Your task to perform on an android device: turn on wifi Image 0: 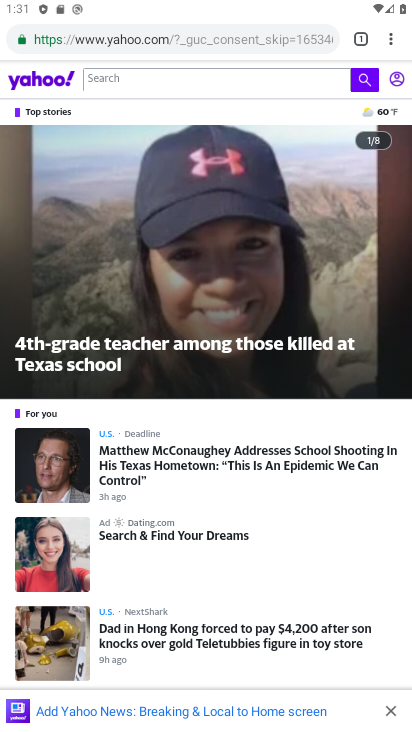
Step 0: press home button
Your task to perform on an android device: turn on wifi Image 1: 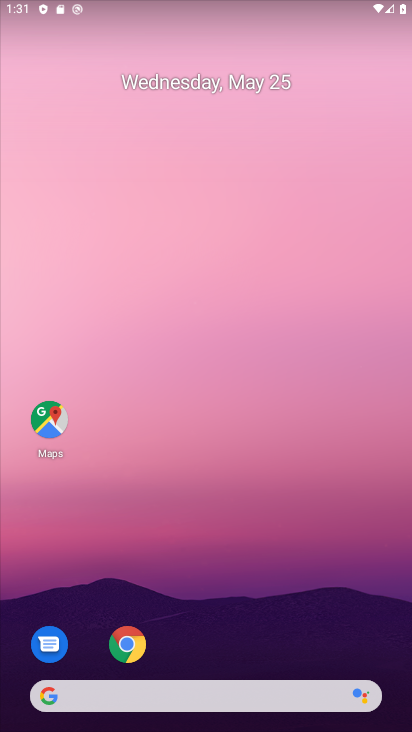
Step 1: drag from (348, 616) to (348, 224)
Your task to perform on an android device: turn on wifi Image 2: 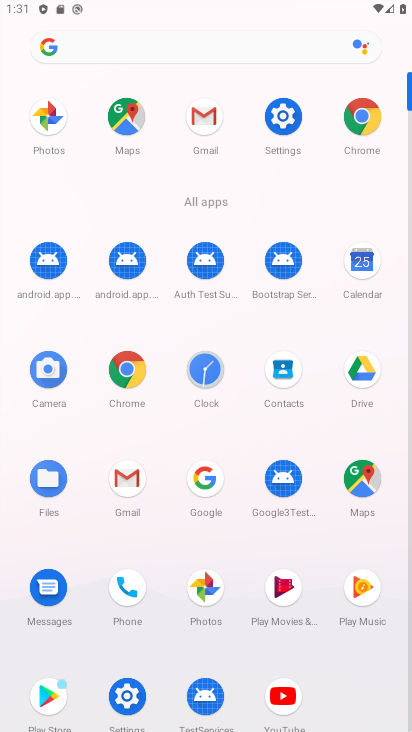
Step 2: drag from (328, 654) to (328, 422)
Your task to perform on an android device: turn on wifi Image 3: 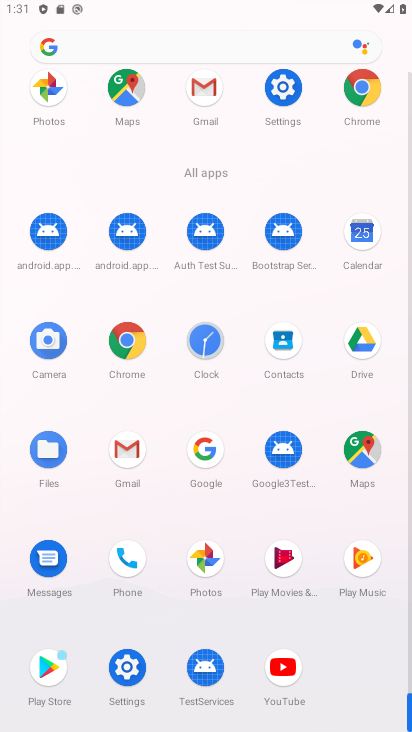
Step 3: click (121, 663)
Your task to perform on an android device: turn on wifi Image 4: 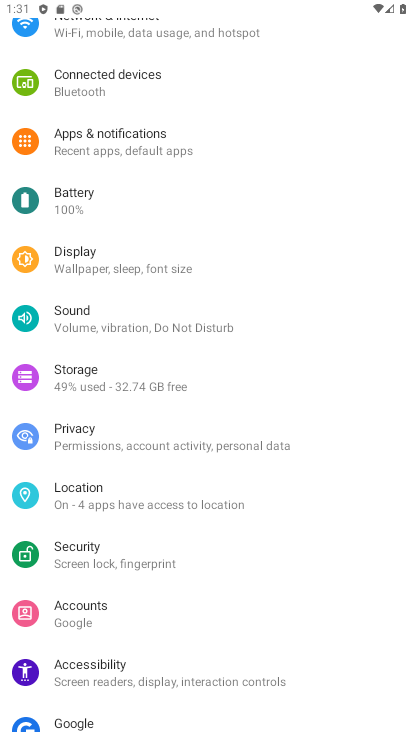
Step 4: drag from (300, 300) to (305, 458)
Your task to perform on an android device: turn on wifi Image 5: 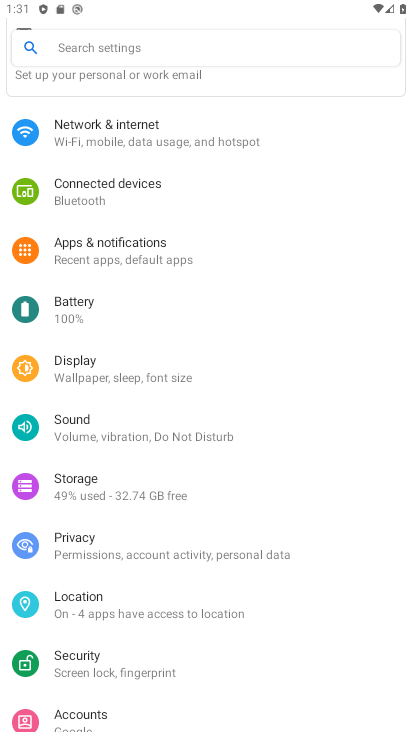
Step 5: click (315, 375)
Your task to perform on an android device: turn on wifi Image 6: 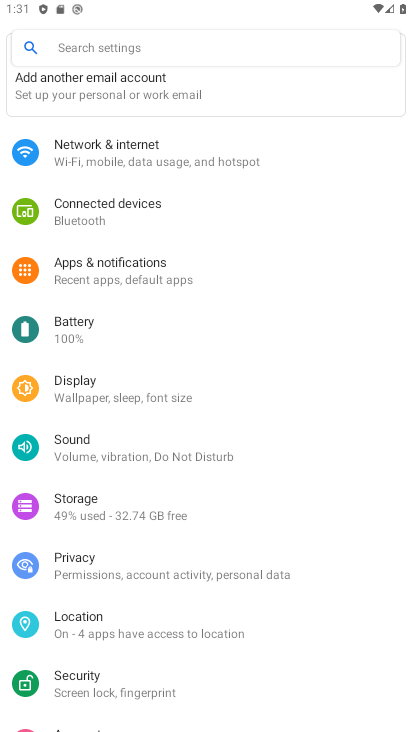
Step 6: click (163, 156)
Your task to perform on an android device: turn on wifi Image 7: 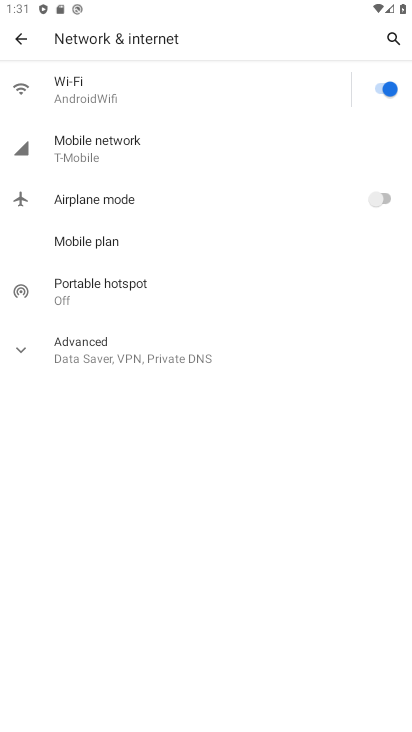
Step 7: task complete